Your task to perform on an android device: Go to settings Image 0: 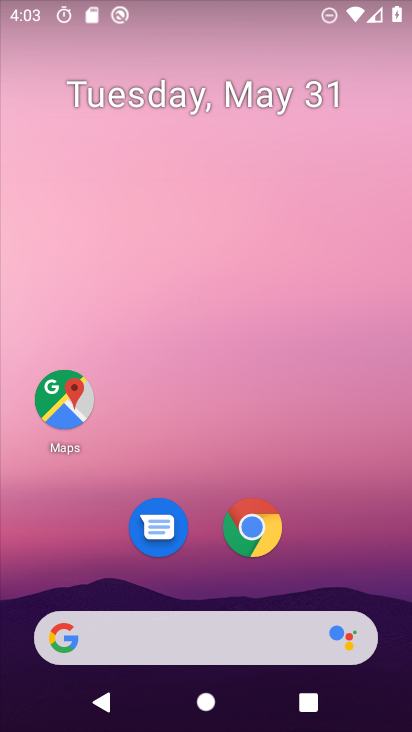
Step 0: drag from (200, 575) to (156, 6)
Your task to perform on an android device: Go to settings Image 1: 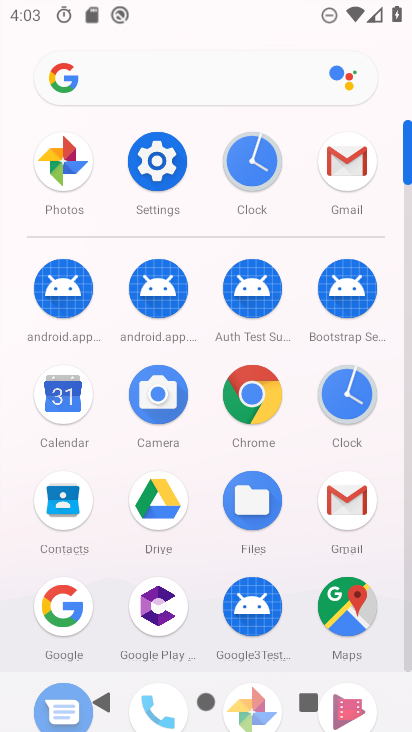
Step 1: click (154, 165)
Your task to perform on an android device: Go to settings Image 2: 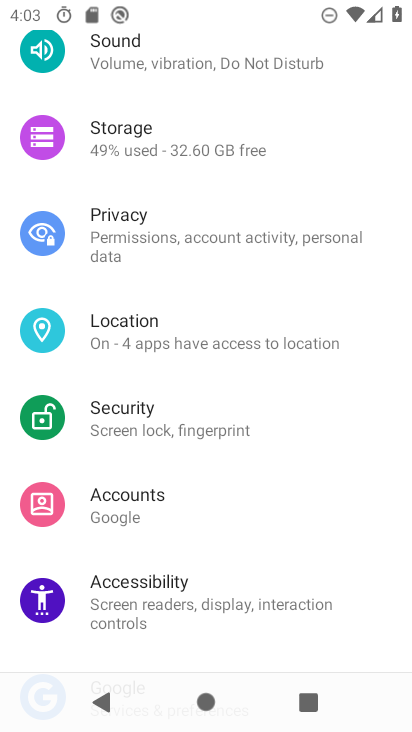
Step 2: task complete